Your task to perform on an android device: Open Google Maps Image 0: 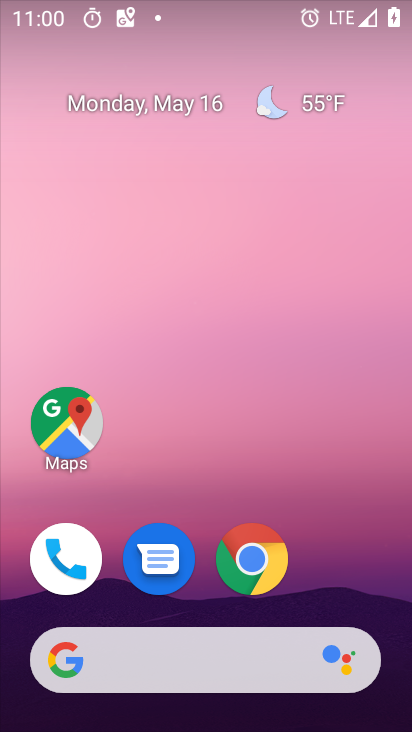
Step 0: click (88, 412)
Your task to perform on an android device: Open Google Maps Image 1: 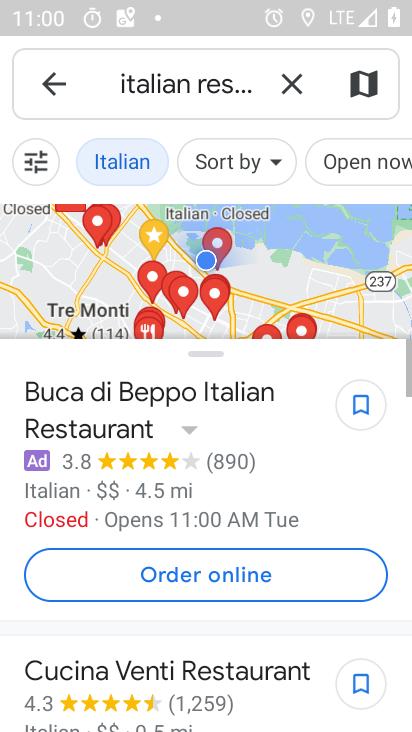
Step 1: task complete